Your task to perform on an android device: Open battery settings Image 0: 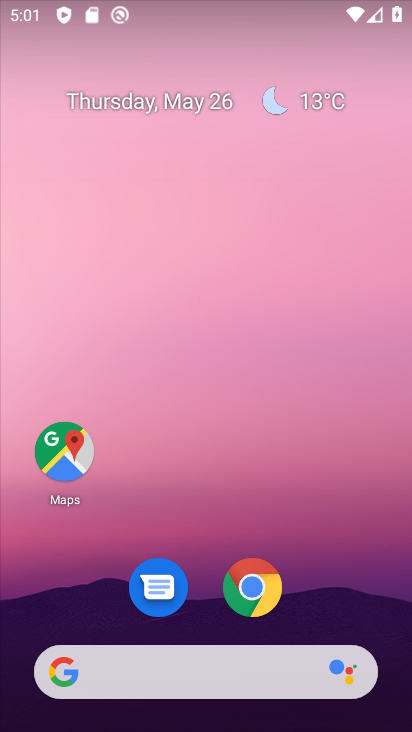
Step 0: drag from (216, 719) to (214, 73)
Your task to perform on an android device: Open battery settings Image 1: 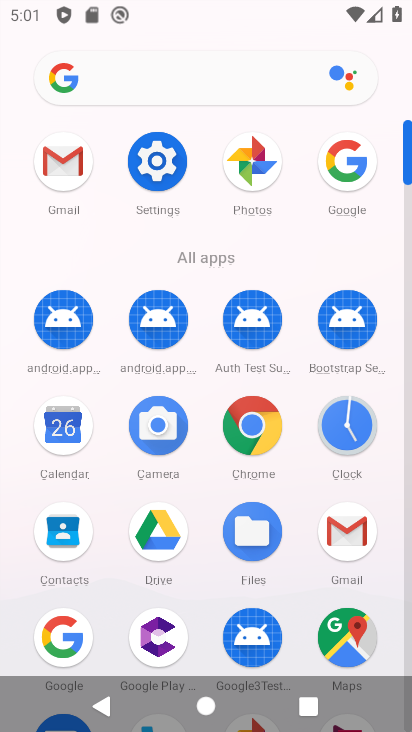
Step 1: click (167, 164)
Your task to perform on an android device: Open battery settings Image 2: 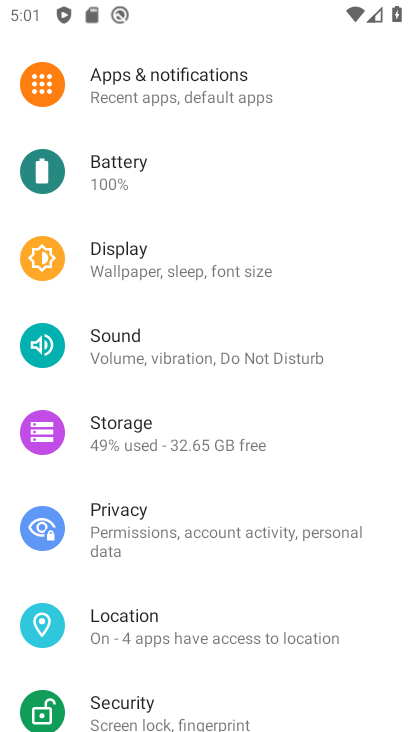
Step 2: click (108, 169)
Your task to perform on an android device: Open battery settings Image 3: 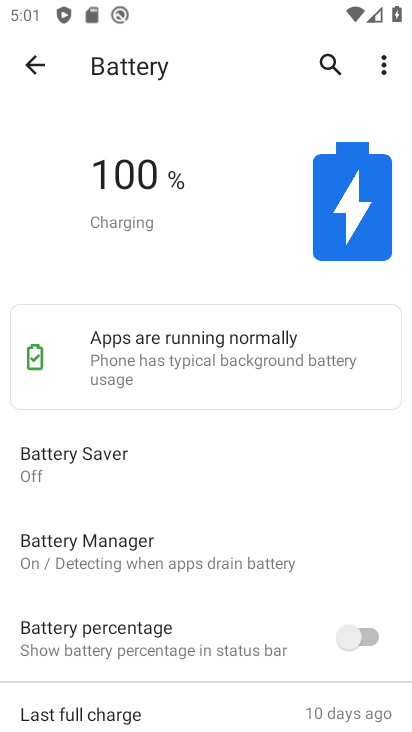
Step 3: task complete